Your task to perform on an android device: Clear the shopping cart on bestbuy. Search for "logitech g903" on bestbuy, select the first entry, add it to the cart, then select checkout. Image 0: 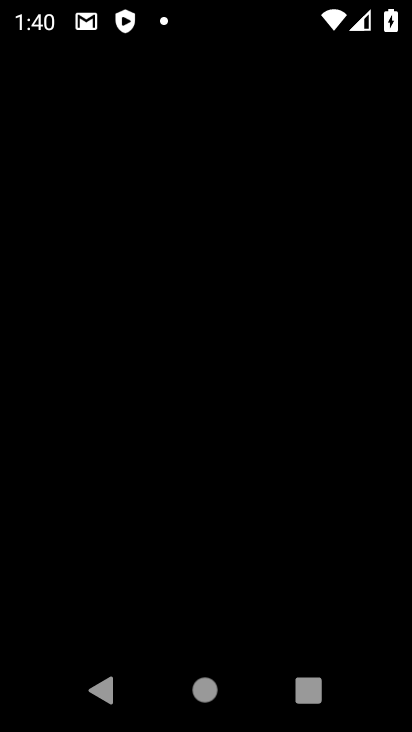
Step 0: press home button
Your task to perform on an android device: Clear the shopping cart on bestbuy. Search for "logitech g903" on bestbuy, select the first entry, add it to the cart, then select checkout. Image 1: 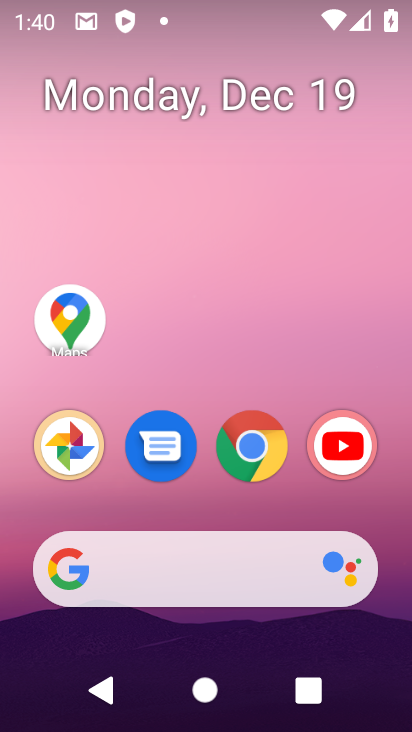
Step 1: click (248, 438)
Your task to perform on an android device: Clear the shopping cart on bestbuy. Search for "logitech g903" on bestbuy, select the first entry, add it to the cart, then select checkout. Image 2: 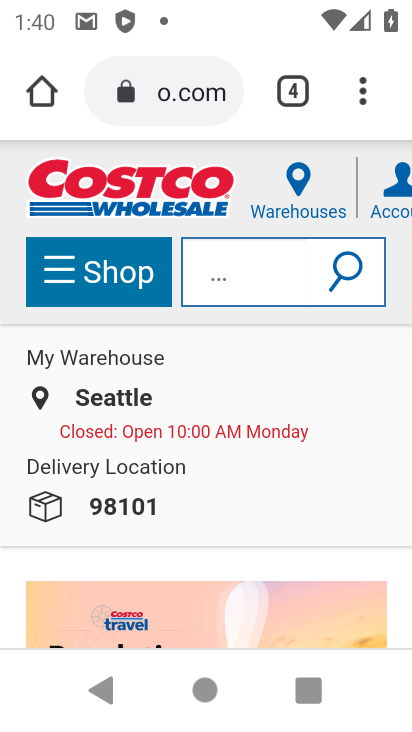
Step 2: press home button
Your task to perform on an android device: Clear the shopping cart on bestbuy. Search for "logitech g903" on bestbuy, select the first entry, add it to the cart, then select checkout. Image 3: 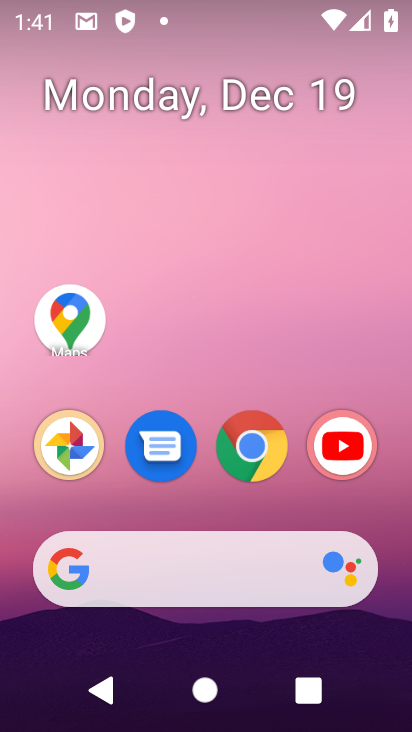
Step 3: click (261, 440)
Your task to perform on an android device: Clear the shopping cart on bestbuy. Search for "logitech g903" on bestbuy, select the first entry, add it to the cart, then select checkout. Image 4: 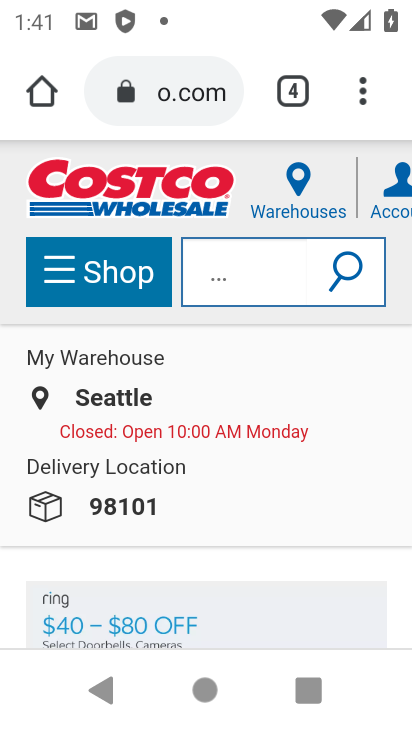
Step 4: click (203, 89)
Your task to perform on an android device: Clear the shopping cart on bestbuy. Search for "logitech g903" on bestbuy, select the first entry, add it to the cart, then select checkout. Image 5: 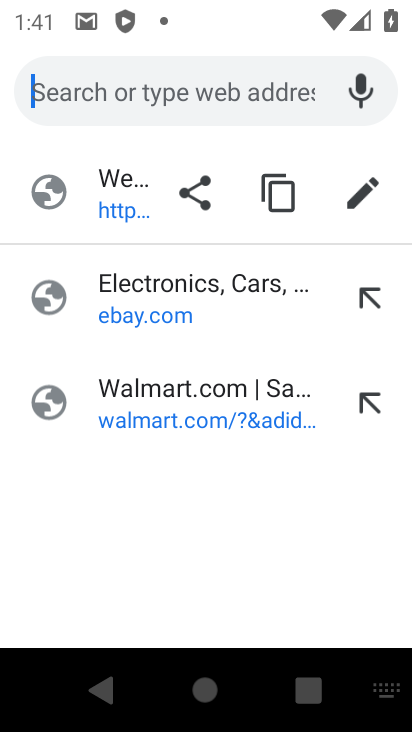
Step 5: type "bestbuy"
Your task to perform on an android device: Clear the shopping cart on bestbuy. Search for "logitech g903" on bestbuy, select the first entry, add it to the cart, then select checkout. Image 6: 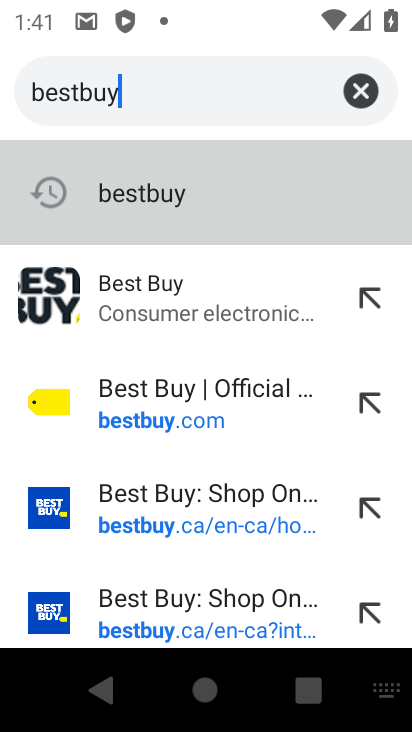
Step 6: click (260, 280)
Your task to perform on an android device: Clear the shopping cart on bestbuy. Search for "logitech g903" on bestbuy, select the first entry, add it to the cart, then select checkout. Image 7: 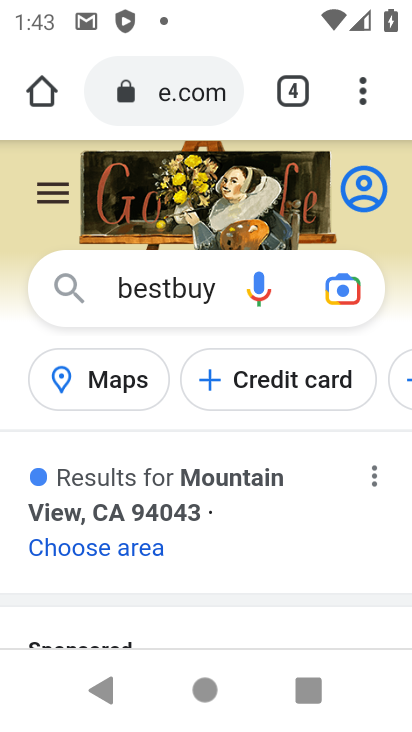
Step 7: task complete